Your task to perform on an android device: allow cookies in the chrome app Image 0: 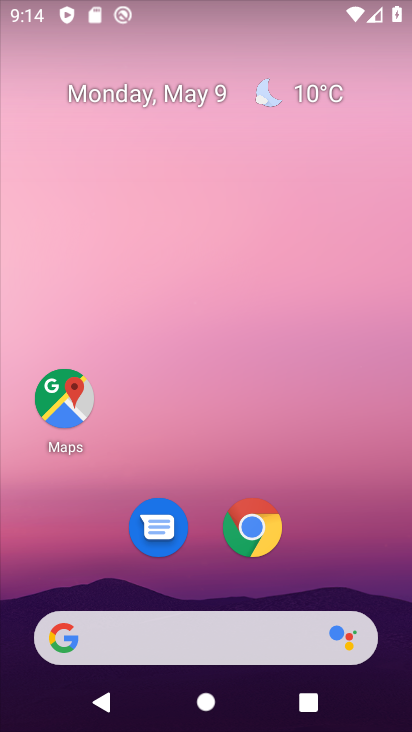
Step 0: click (251, 524)
Your task to perform on an android device: allow cookies in the chrome app Image 1: 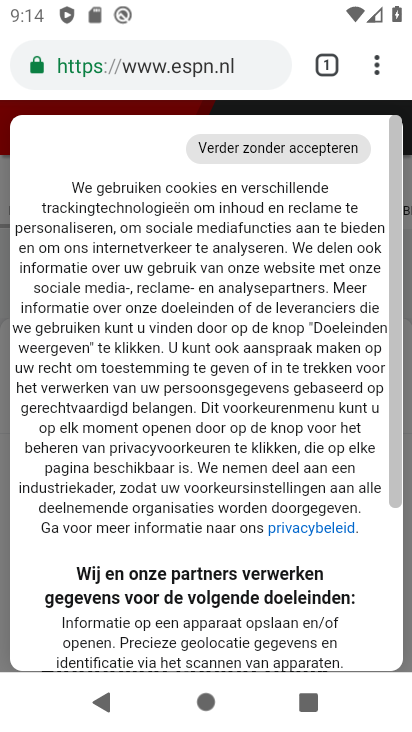
Step 1: click (373, 68)
Your task to perform on an android device: allow cookies in the chrome app Image 2: 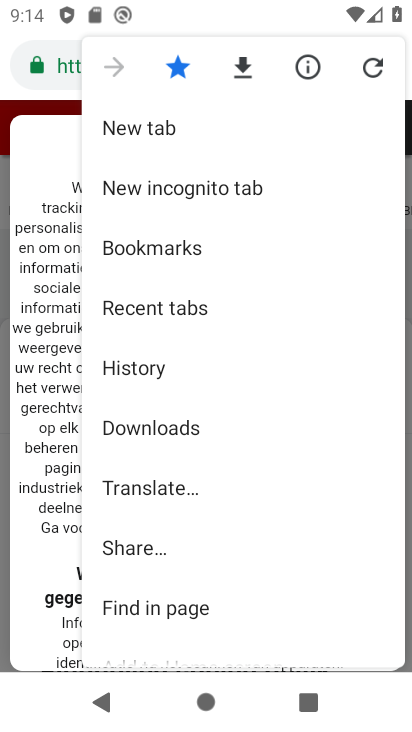
Step 2: drag from (244, 600) to (278, 248)
Your task to perform on an android device: allow cookies in the chrome app Image 3: 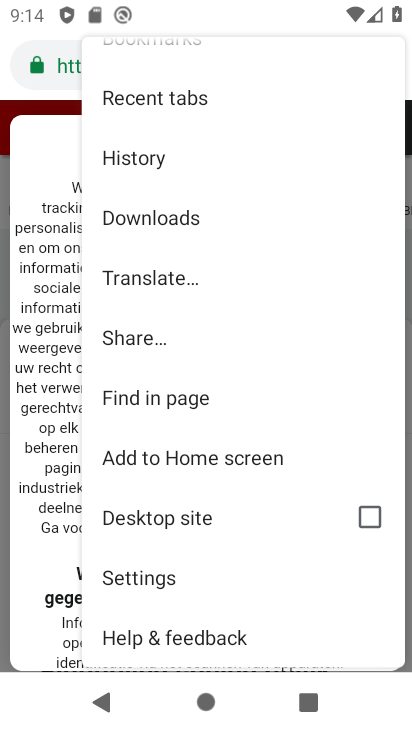
Step 3: click (120, 577)
Your task to perform on an android device: allow cookies in the chrome app Image 4: 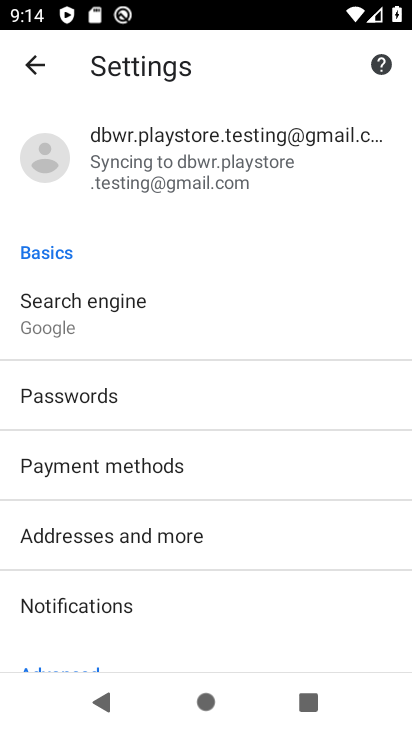
Step 4: drag from (233, 601) to (294, 251)
Your task to perform on an android device: allow cookies in the chrome app Image 5: 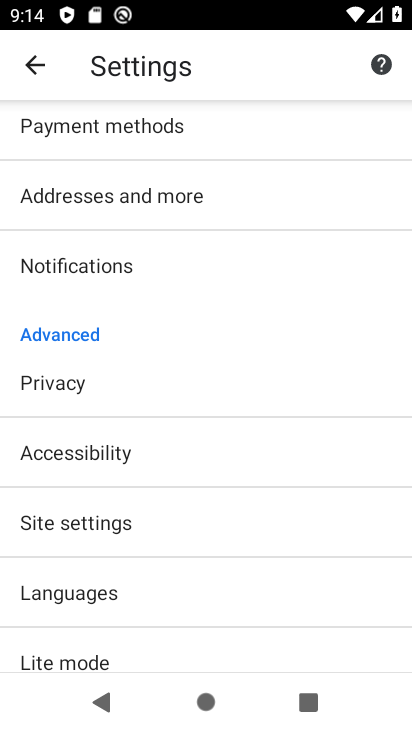
Step 5: drag from (197, 597) to (258, 212)
Your task to perform on an android device: allow cookies in the chrome app Image 6: 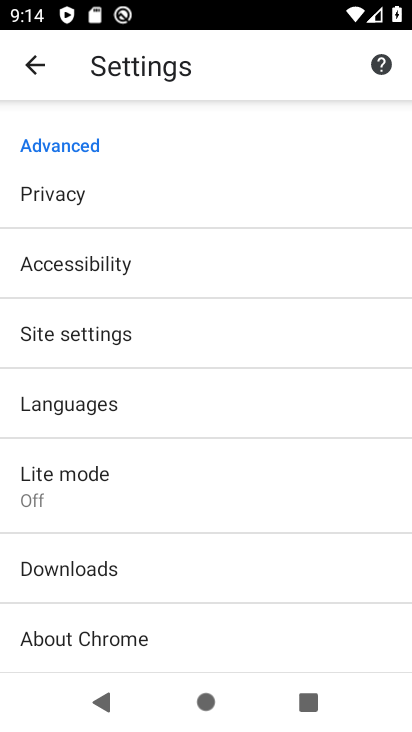
Step 6: click (44, 328)
Your task to perform on an android device: allow cookies in the chrome app Image 7: 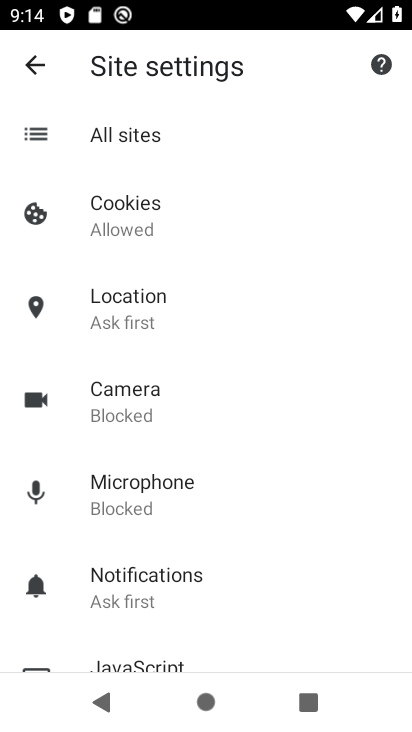
Step 7: click (116, 209)
Your task to perform on an android device: allow cookies in the chrome app Image 8: 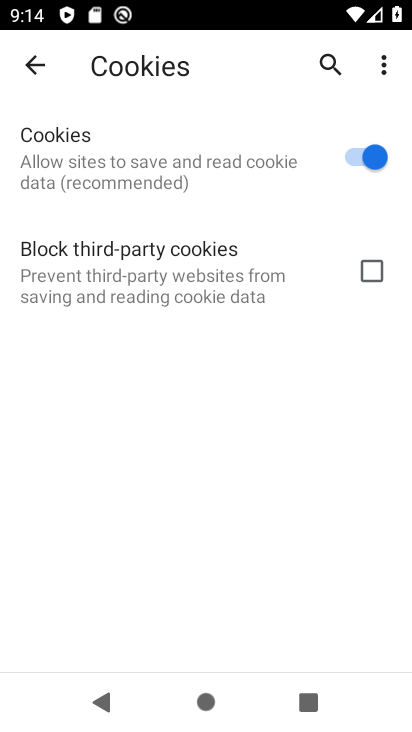
Step 8: task complete